Your task to perform on an android device: toggle airplane mode Image 0: 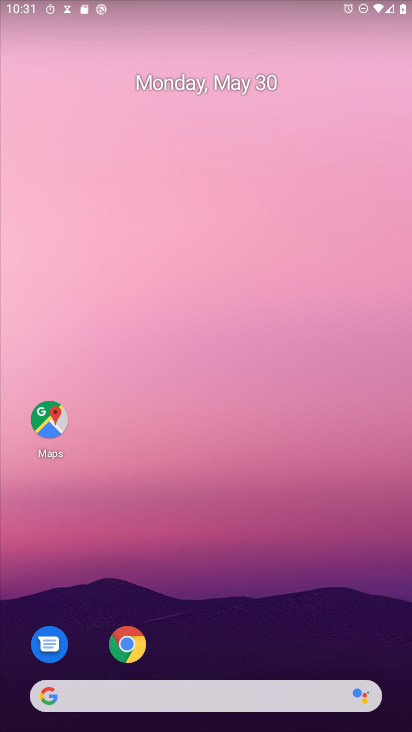
Step 0: drag from (222, 640) to (226, 46)
Your task to perform on an android device: toggle airplane mode Image 1: 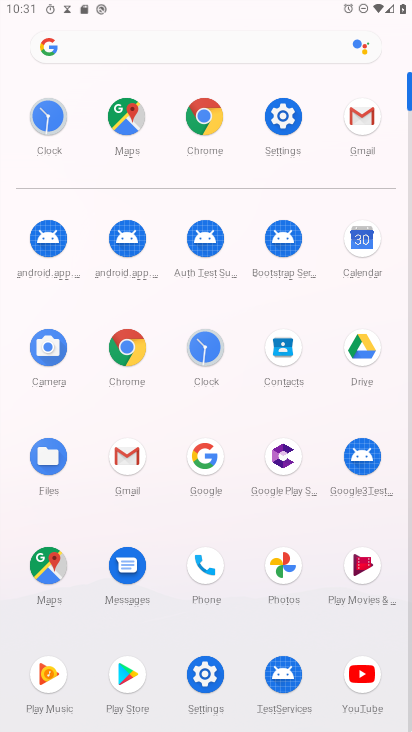
Step 1: click (277, 126)
Your task to perform on an android device: toggle airplane mode Image 2: 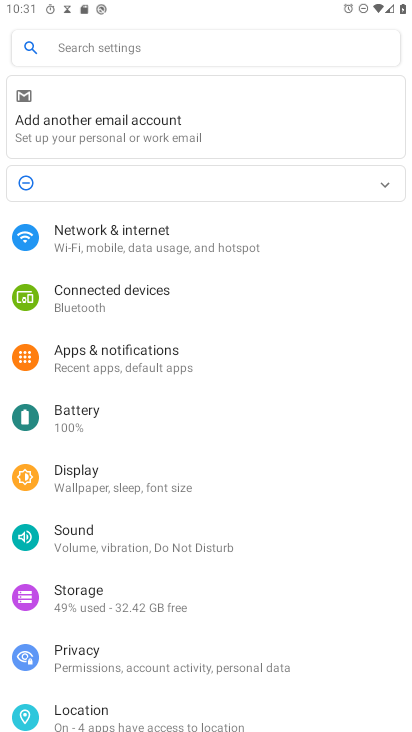
Step 2: click (155, 248)
Your task to perform on an android device: toggle airplane mode Image 3: 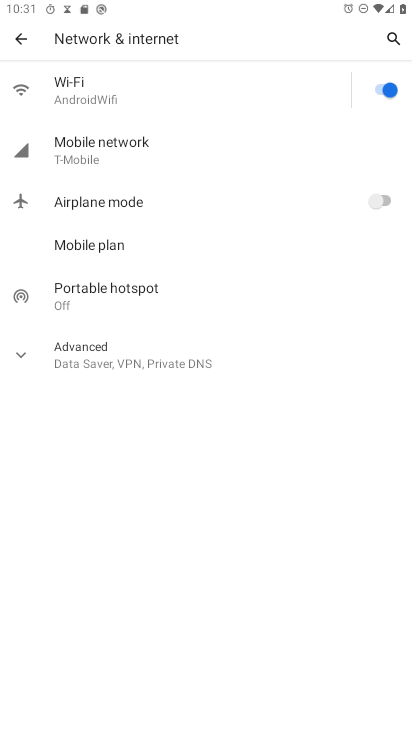
Step 3: click (382, 202)
Your task to perform on an android device: toggle airplane mode Image 4: 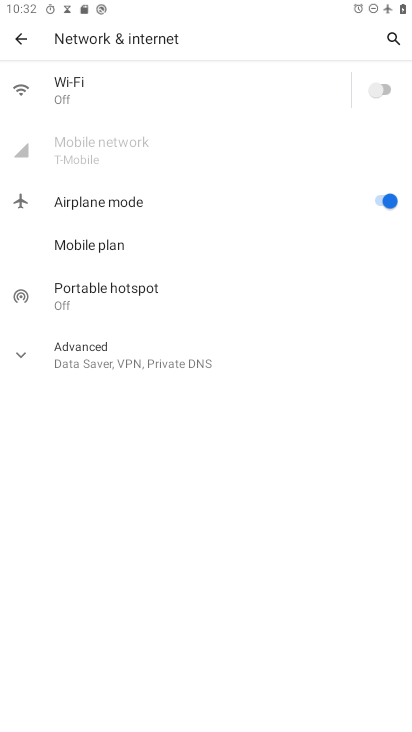
Step 4: task complete